Your task to perform on an android device: toggle airplane mode Image 0: 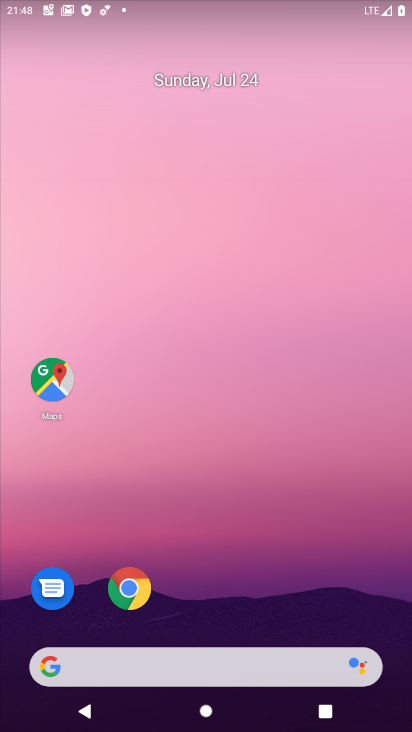
Step 0: drag from (192, 657) to (185, 348)
Your task to perform on an android device: toggle airplane mode Image 1: 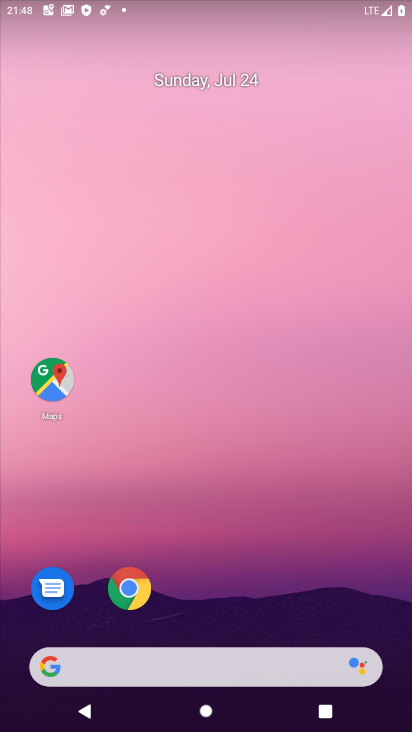
Step 1: drag from (245, 560) to (268, 202)
Your task to perform on an android device: toggle airplane mode Image 2: 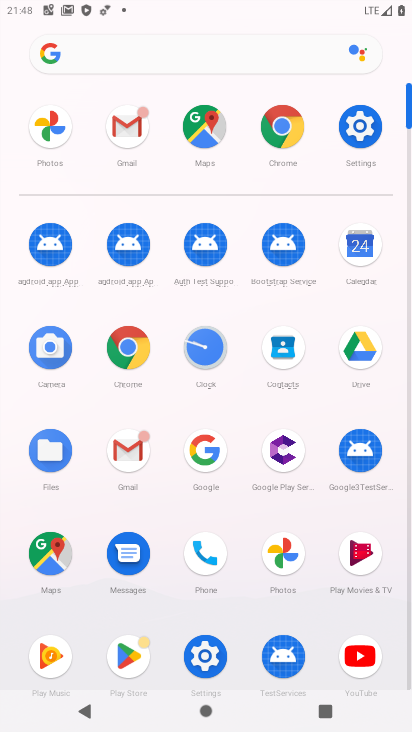
Step 2: click (358, 137)
Your task to perform on an android device: toggle airplane mode Image 3: 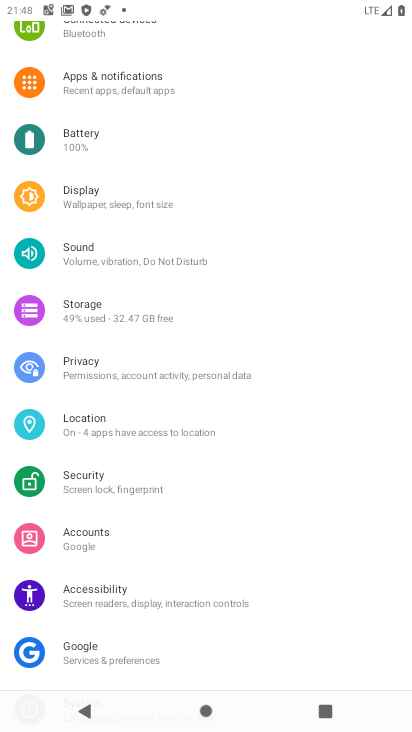
Step 3: drag from (195, 90) to (219, 253)
Your task to perform on an android device: toggle airplane mode Image 4: 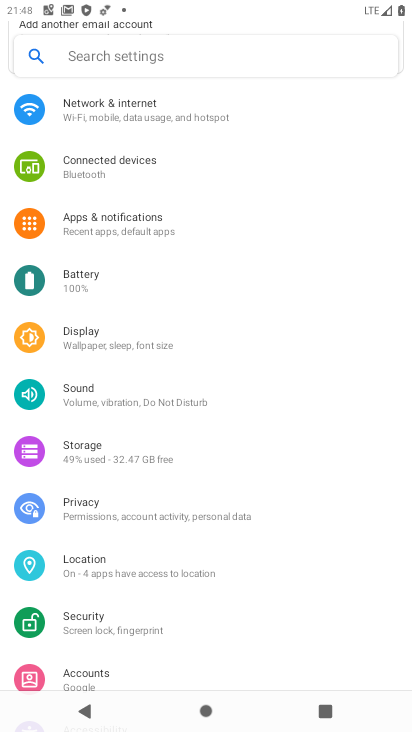
Step 4: click (163, 109)
Your task to perform on an android device: toggle airplane mode Image 5: 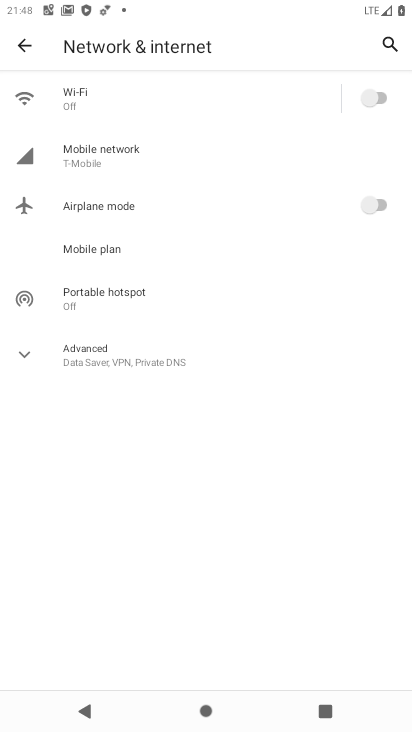
Step 5: click (377, 203)
Your task to perform on an android device: toggle airplane mode Image 6: 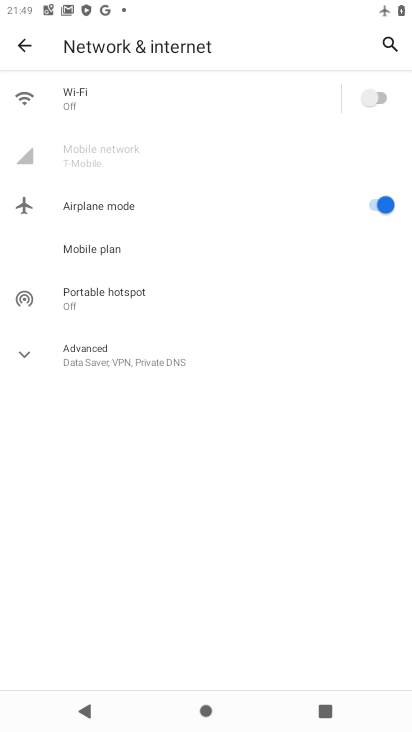
Step 6: task complete